Your task to perform on an android device: make emails show in primary in the gmail app Image 0: 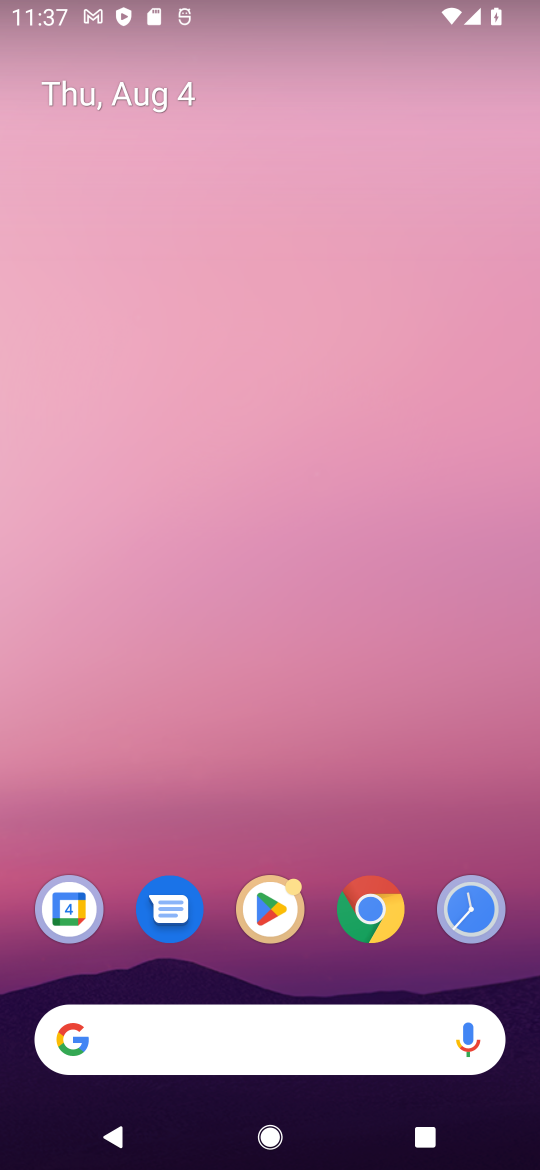
Step 0: drag from (164, 896) to (275, 28)
Your task to perform on an android device: make emails show in primary in the gmail app Image 1: 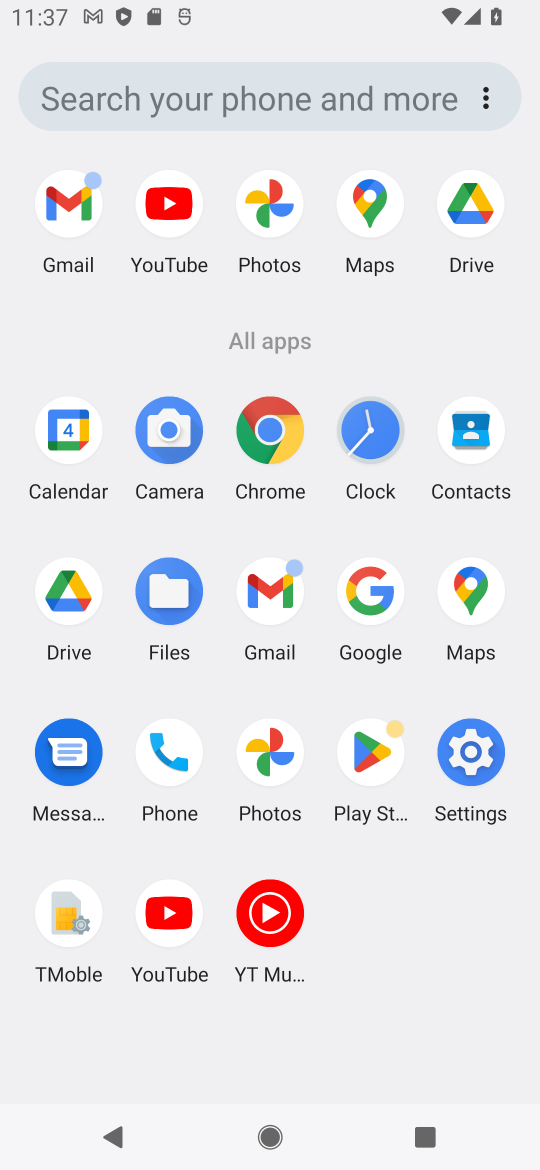
Step 1: click (287, 583)
Your task to perform on an android device: make emails show in primary in the gmail app Image 2: 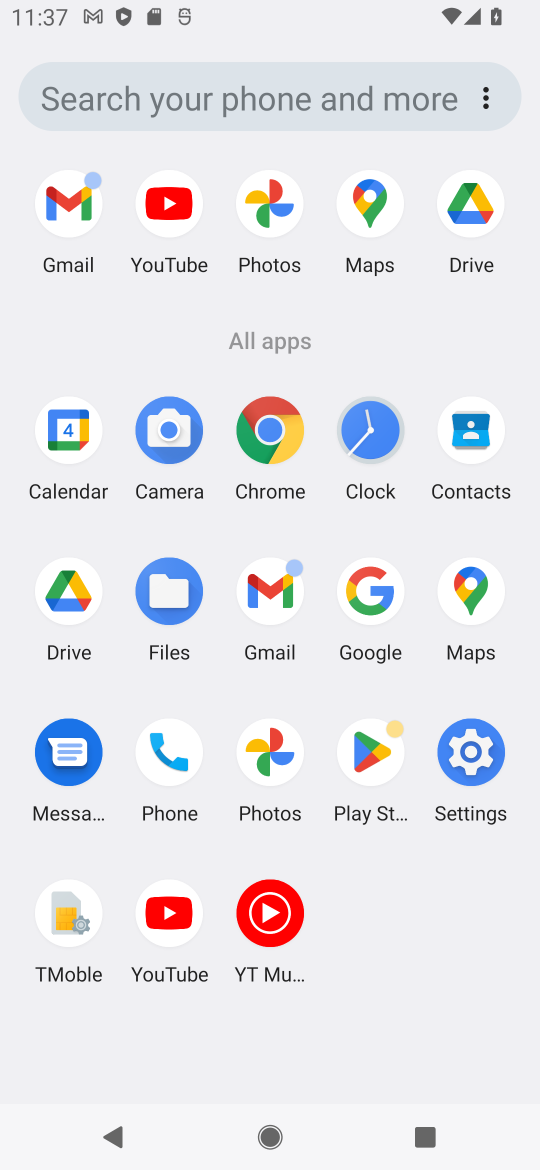
Step 2: click (287, 583)
Your task to perform on an android device: make emails show in primary in the gmail app Image 3: 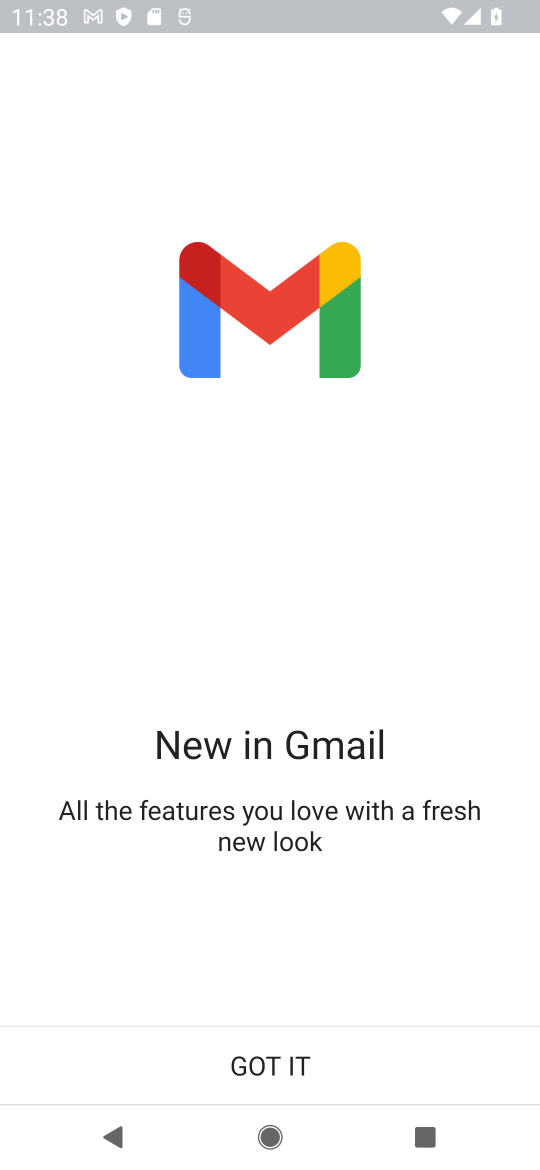
Step 3: click (341, 1061)
Your task to perform on an android device: make emails show in primary in the gmail app Image 4: 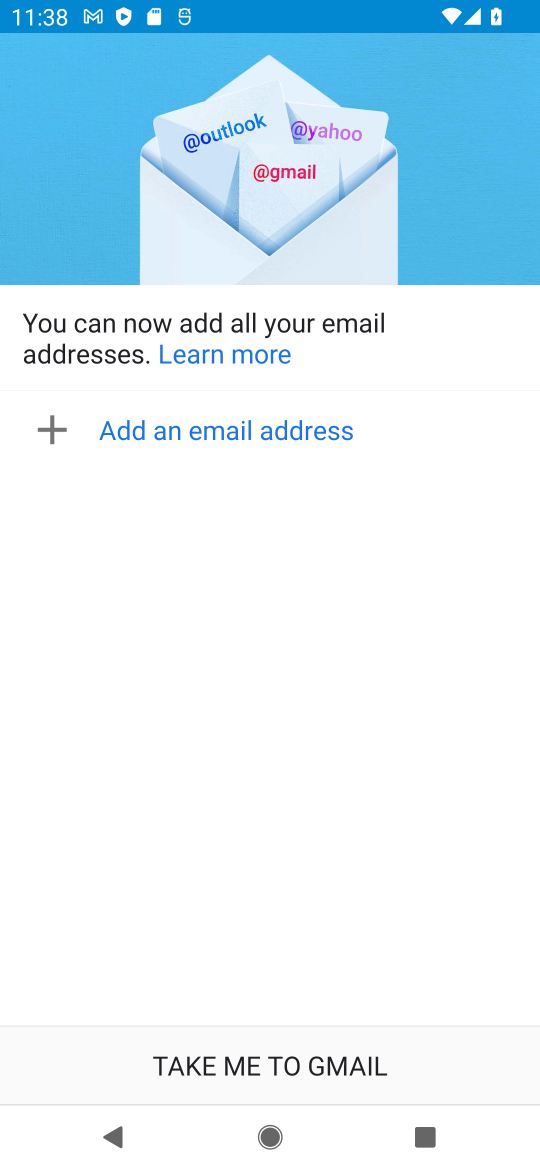
Step 4: click (338, 1066)
Your task to perform on an android device: make emails show in primary in the gmail app Image 5: 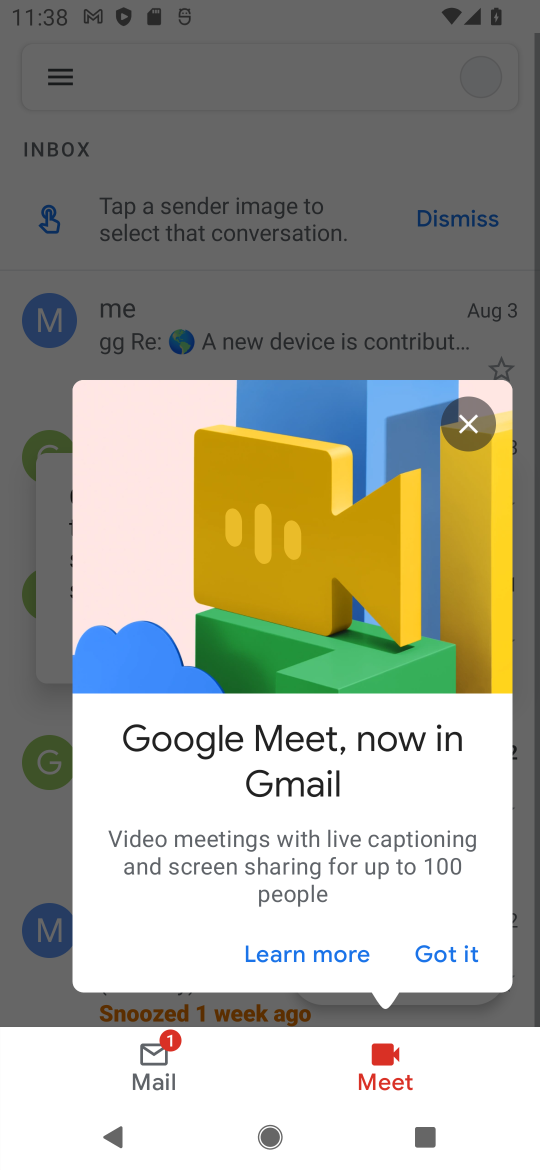
Step 5: click (469, 651)
Your task to perform on an android device: make emails show in primary in the gmail app Image 6: 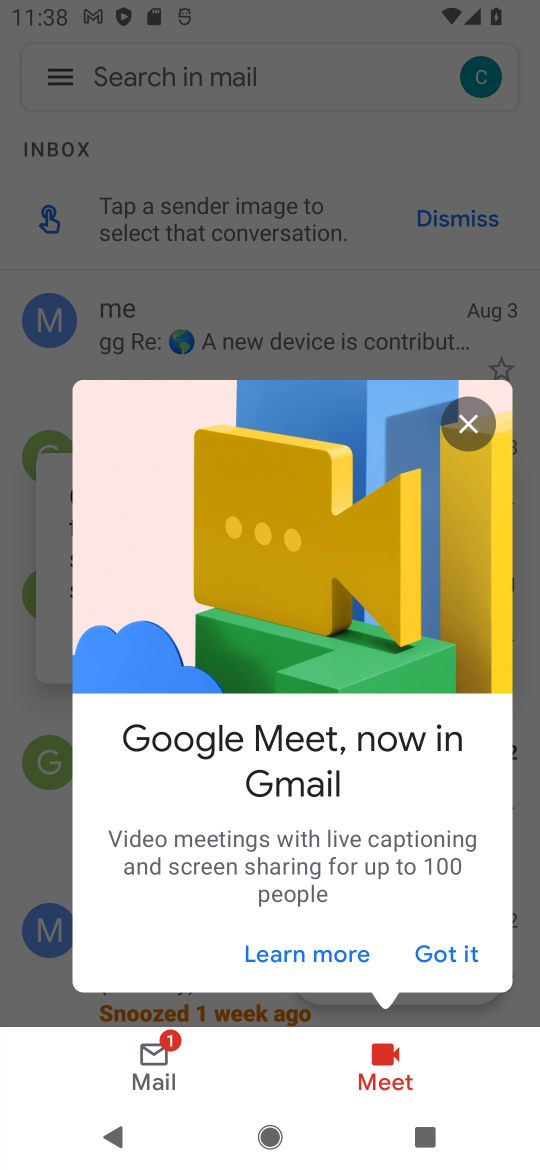
Step 6: click (439, 938)
Your task to perform on an android device: make emails show in primary in the gmail app Image 7: 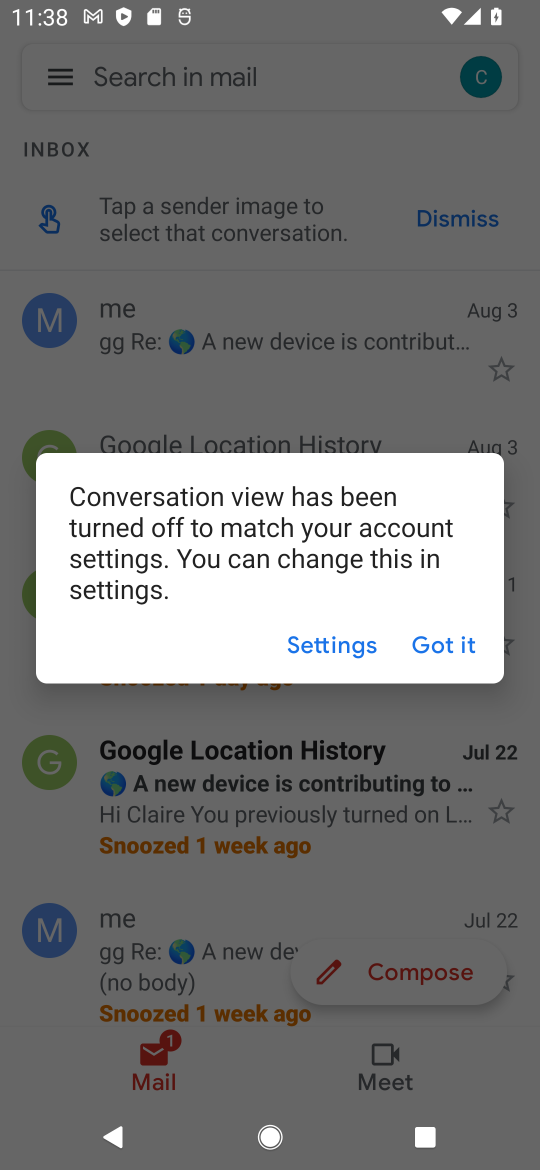
Step 7: click (443, 632)
Your task to perform on an android device: make emails show in primary in the gmail app Image 8: 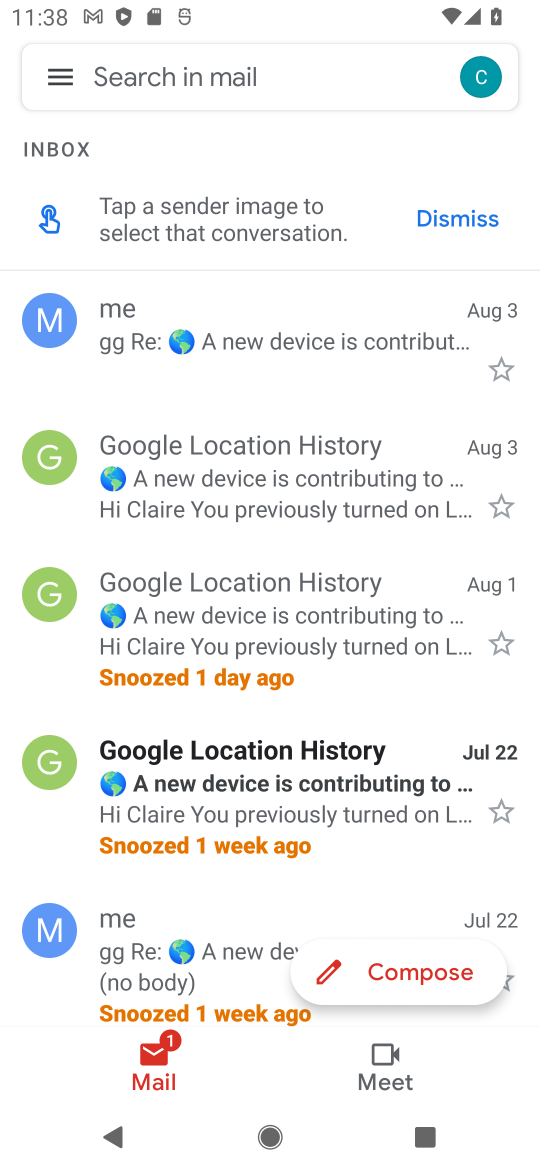
Step 8: click (65, 79)
Your task to perform on an android device: make emails show in primary in the gmail app Image 9: 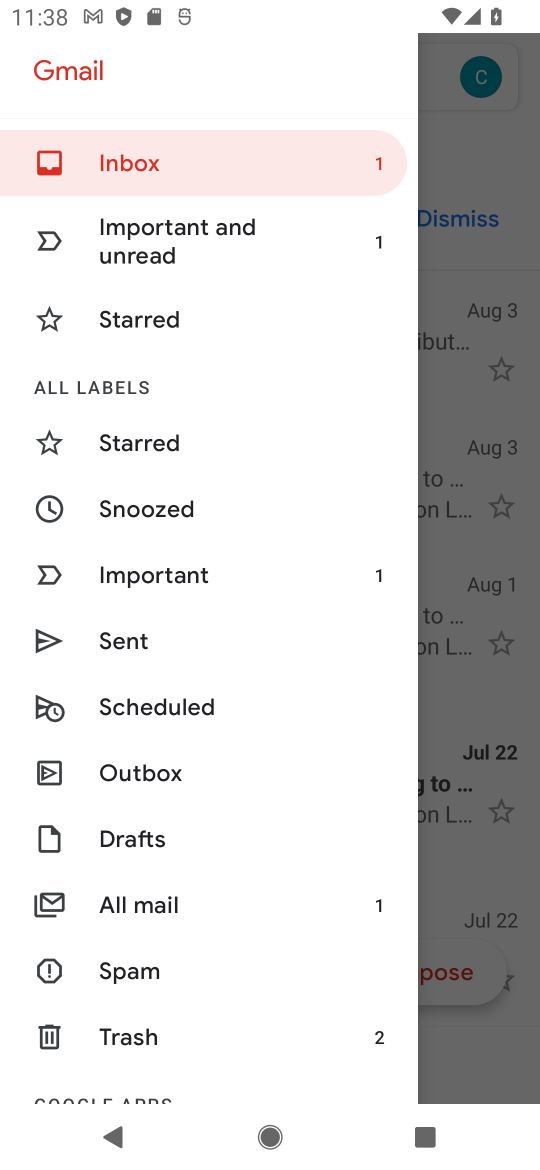
Step 9: drag from (286, 1064) to (132, 217)
Your task to perform on an android device: make emails show in primary in the gmail app Image 10: 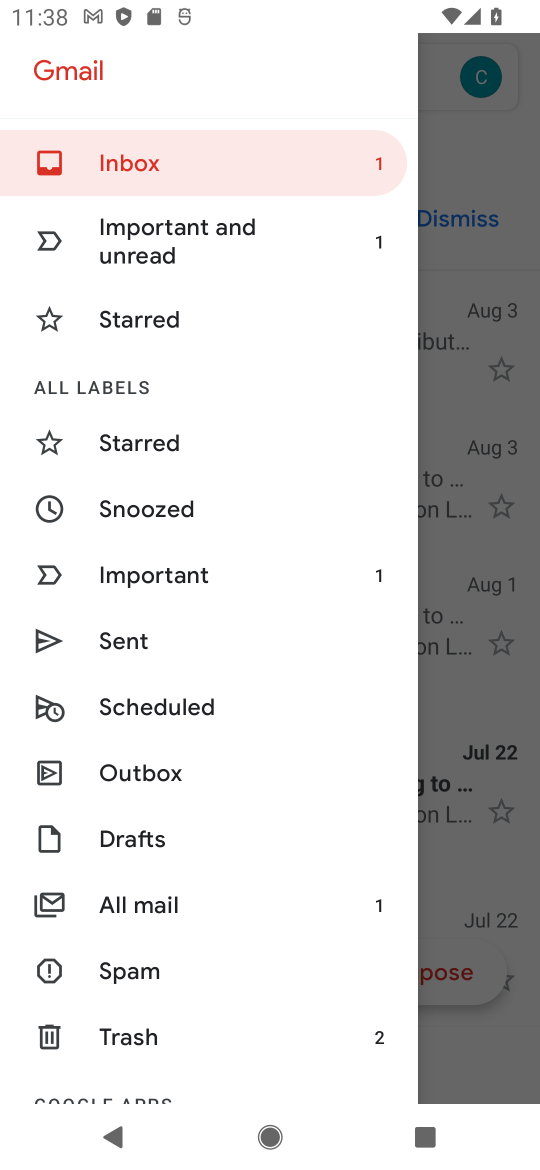
Step 10: drag from (174, 954) to (123, 50)
Your task to perform on an android device: make emails show in primary in the gmail app Image 11: 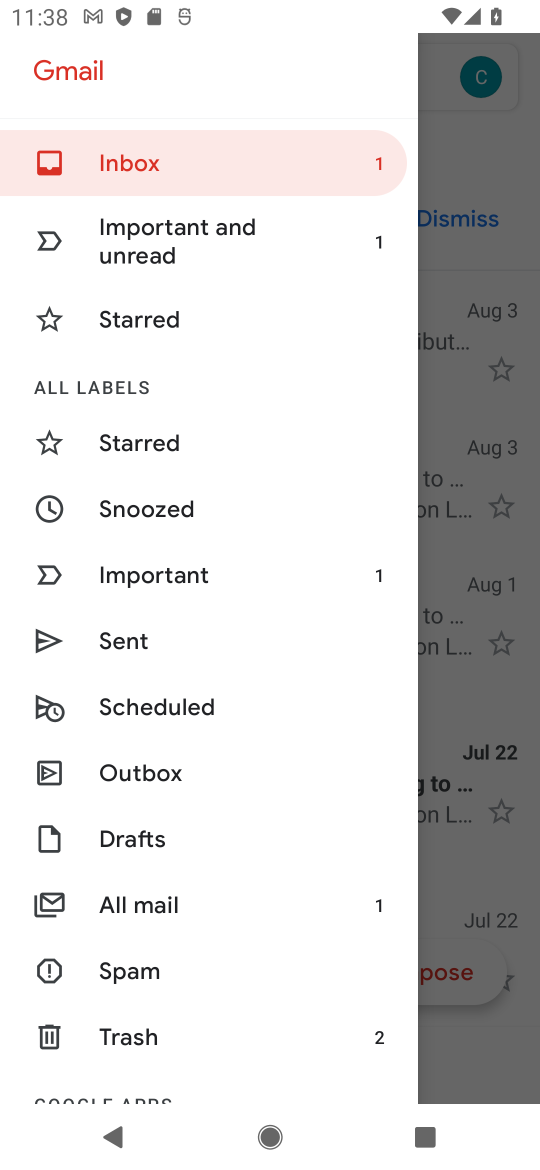
Step 11: drag from (50, 1016) to (0, 1062)
Your task to perform on an android device: make emails show in primary in the gmail app Image 12: 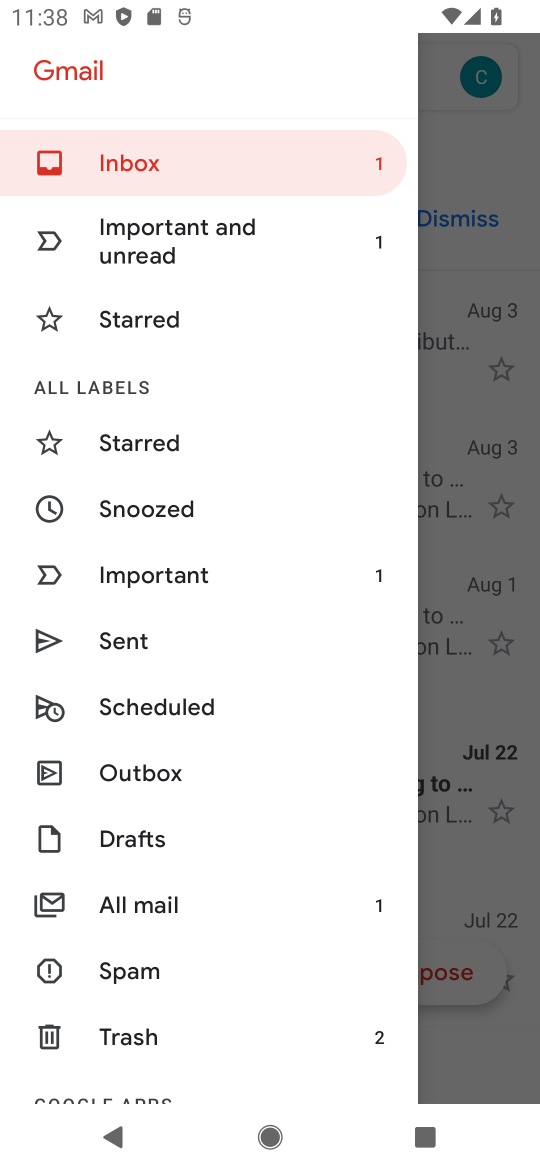
Step 12: drag from (230, 1063) to (144, 63)
Your task to perform on an android device: make emails show in primary in the gmail app Image 13: 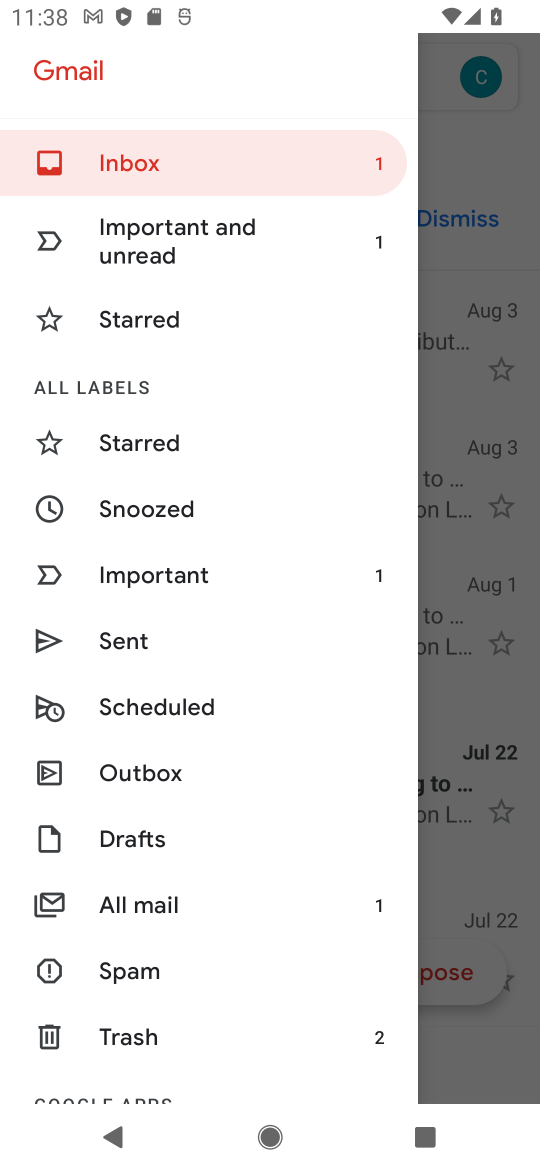
Step 13: drag from (91, 1046) to (165, 220)
Your task to perform on an android device: make emails show in primary in the gmail app Image 14: 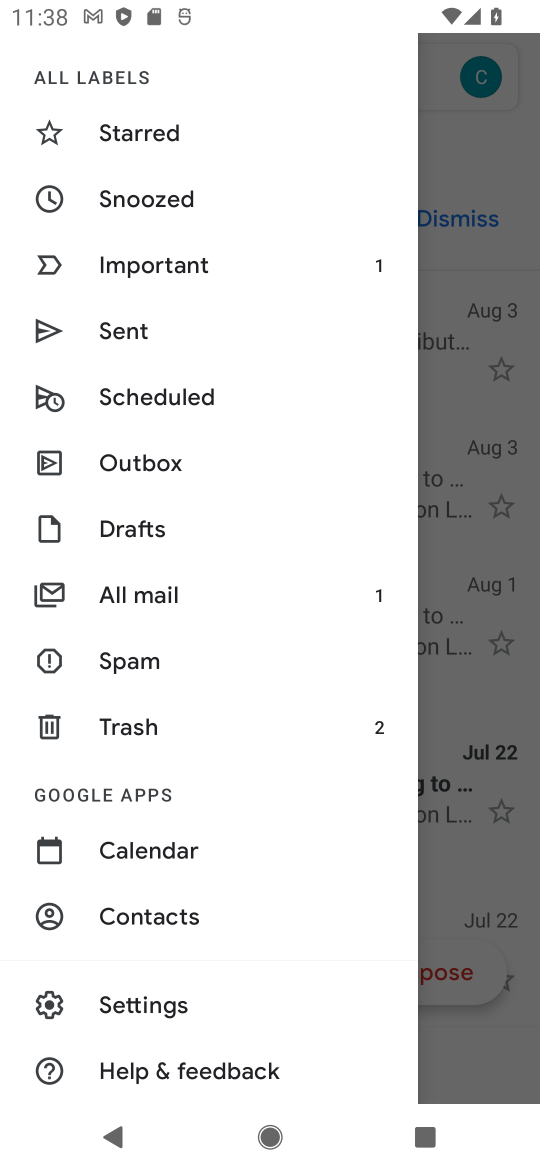
Step 14: click (178, 989)
Your task to perform on an android device: make emails show in primary in the gmail app Image 15: 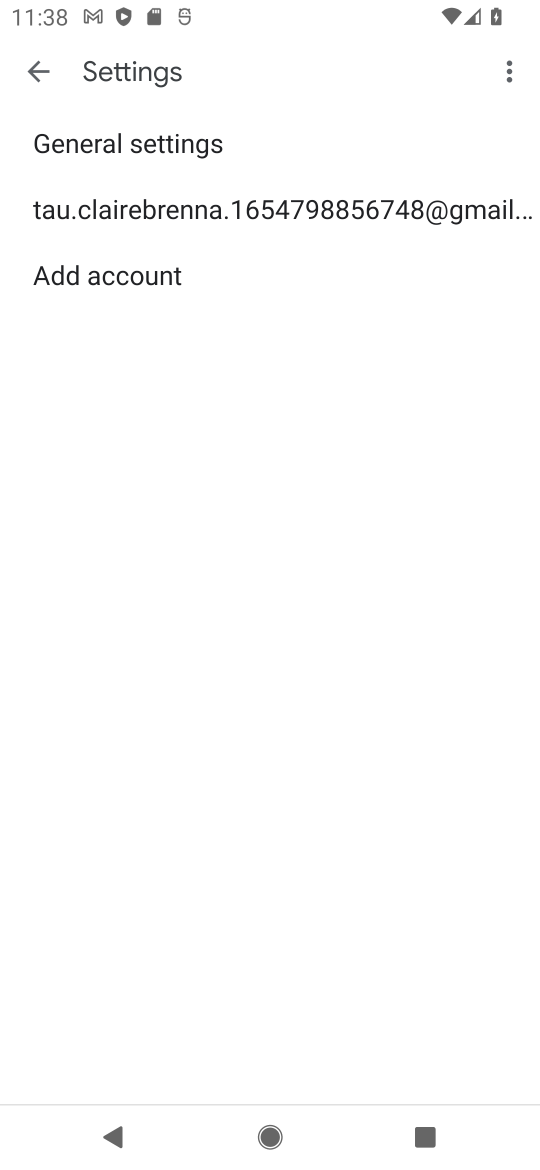
Step 15: click (212, 215)
Your task to perform on an android device: make emails show in primary in the gmail app Image 16: 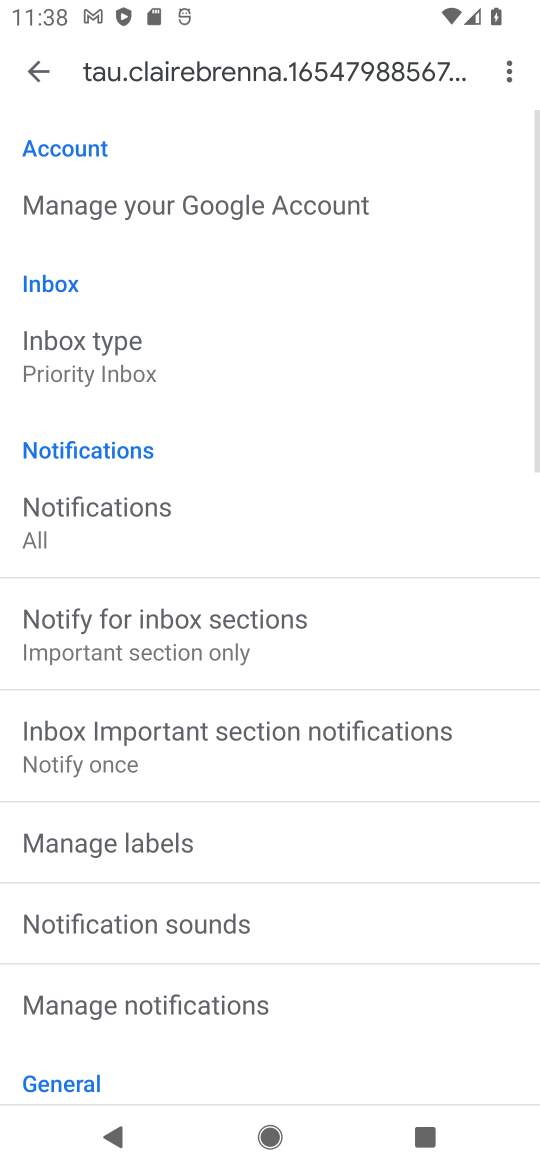
Step 16: click (144, 339)
Your task to perform on an android device: make emails show in primary in the gmail app Image 17: 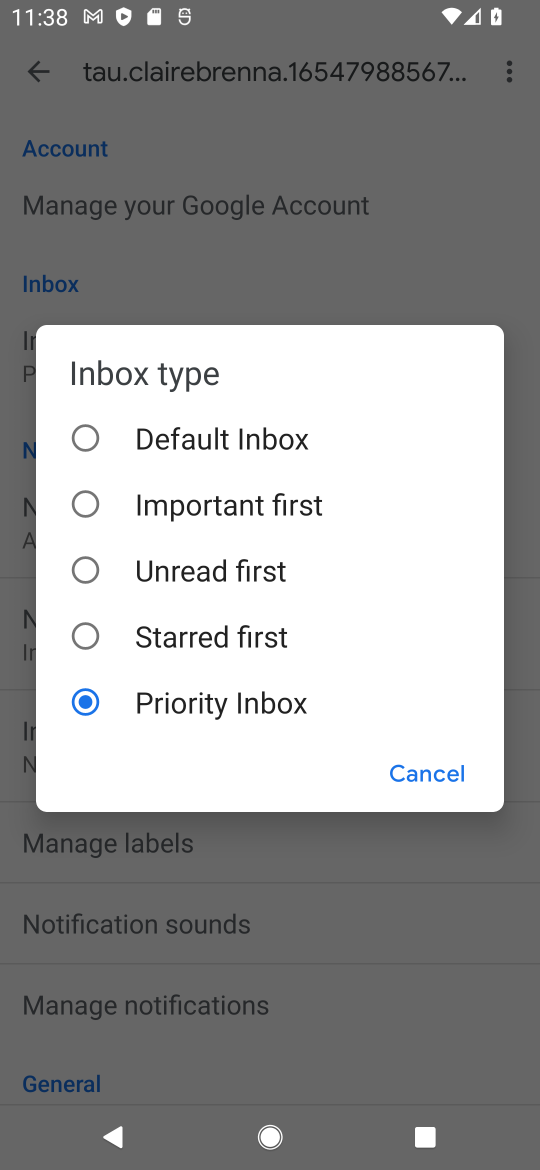
Step 17: click (224, 436)
Your task to perform on an android device: make emails show in primary in the gmail app Image 18: 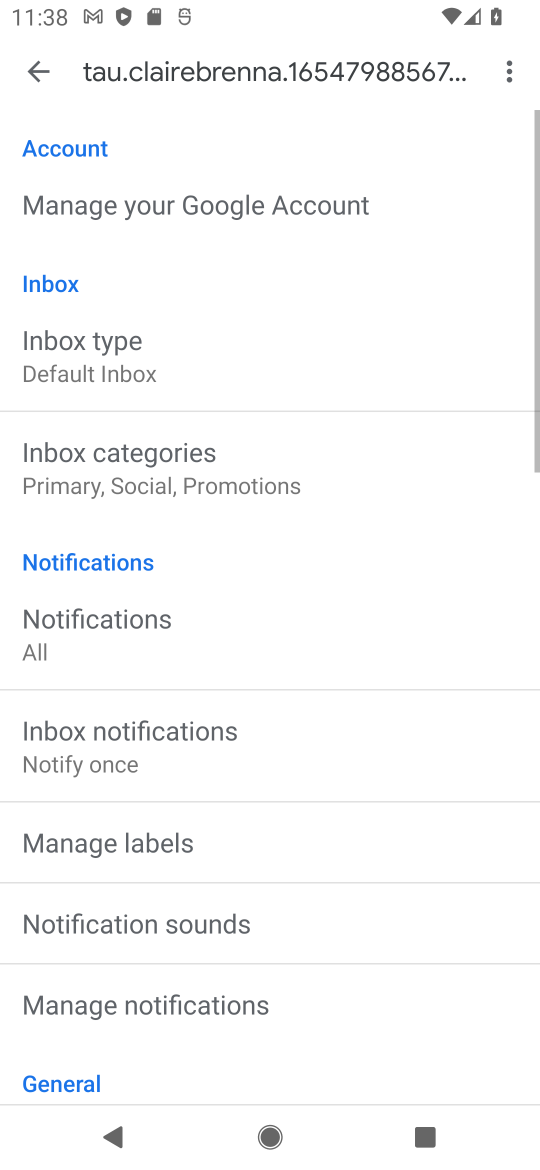
Step 18: click (151, 488)
Your task to perform on an android device: make emails show in primary in the gmail app Image 19: 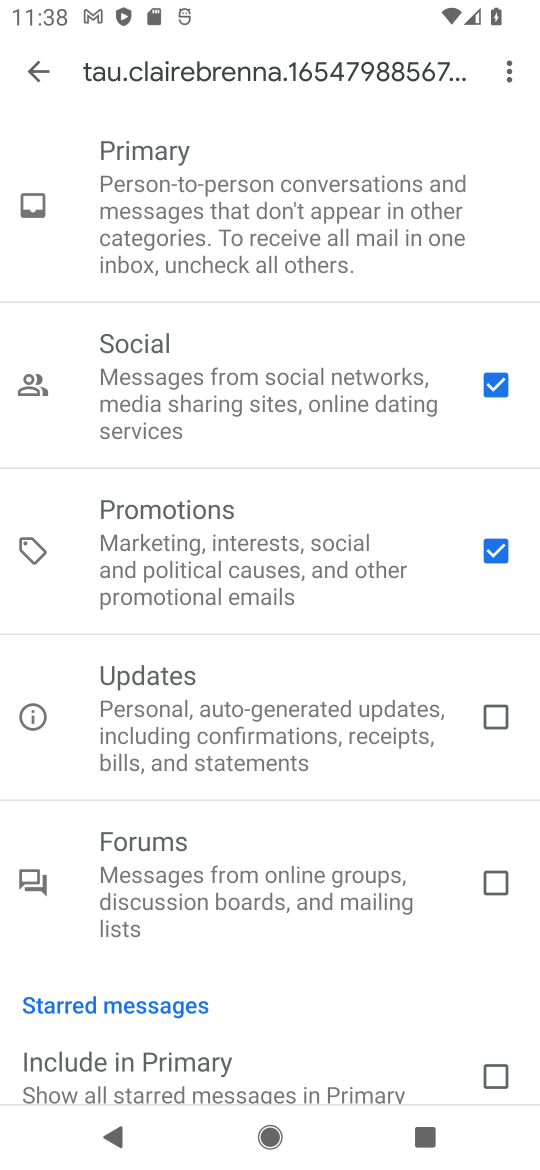
Step 19: click (513, 377)
Your task to perform on an android device: make emails show in primary in the gmail app Image 20: 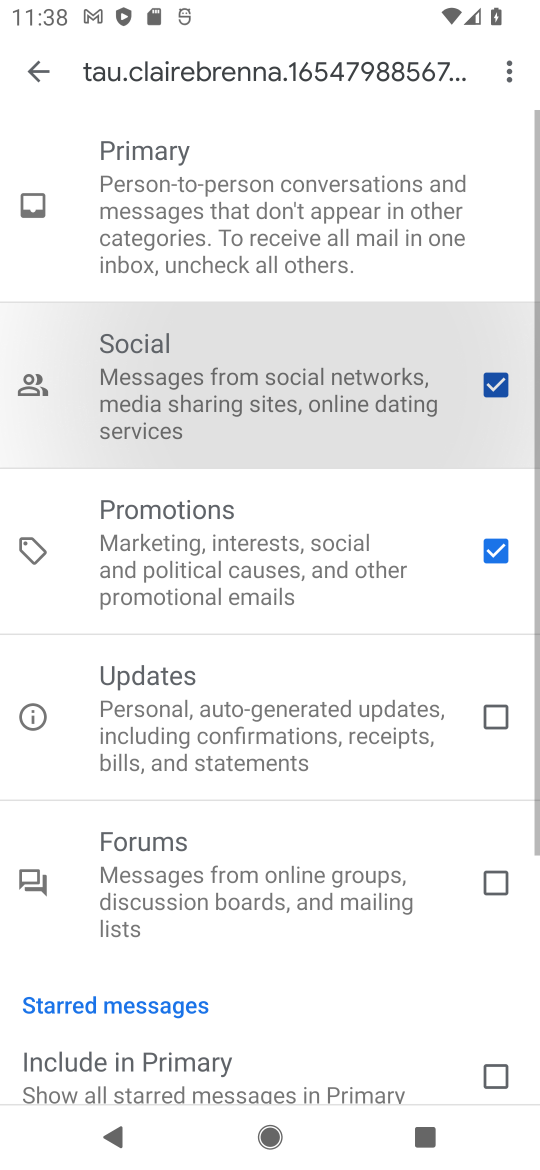
Step 20: click (495, 554)
Your task to perform on an android device: make emails show in primary in the gmail app Image 21: 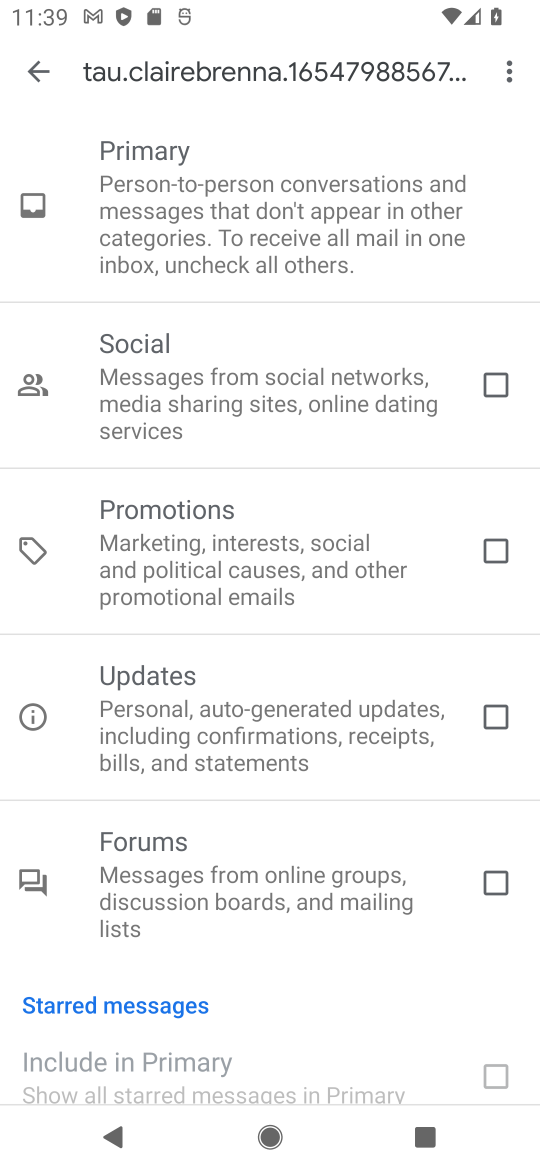
Step 21: task complete